Your task to perform on an android device: When is my next appointment? Image 0: 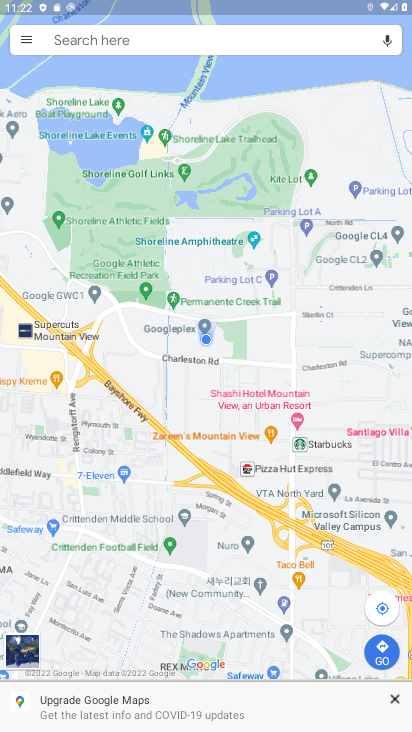
Step 0: press home button
Your task to perform on an android device: When is my next appointment? Image 1: 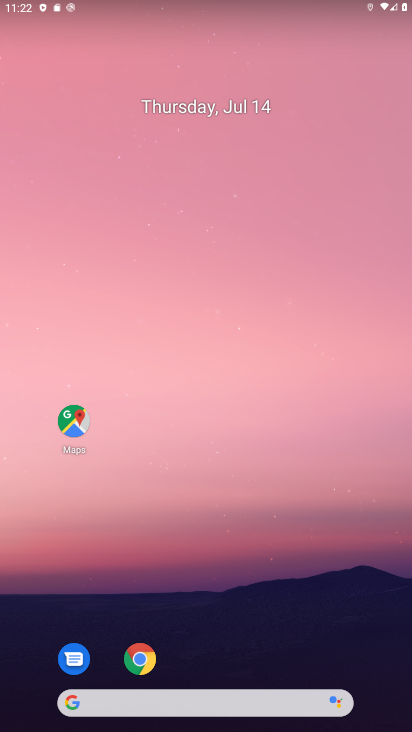
Step 1: drag from (205, 650) to (195, 239)
Your task to perform on an android device: When is my next appointment? Image 2: 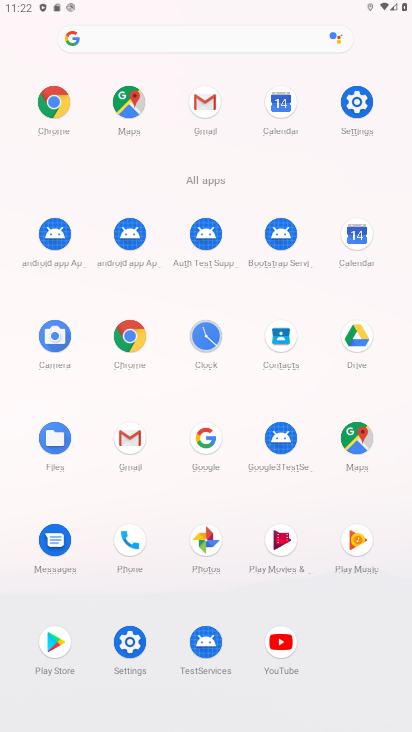
Step 2: click (274, 106)
Your task to perform on an android device: When is my next appointment? Image 3: 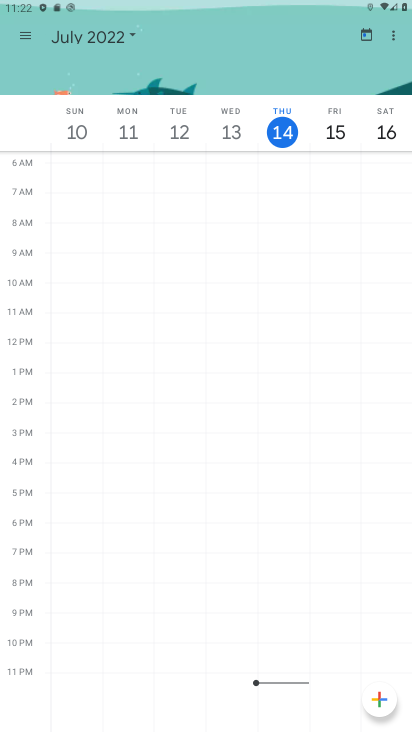
Step 3: click (320, 133)
Your task to perform on an android device: When is my next appointment? Image 4: 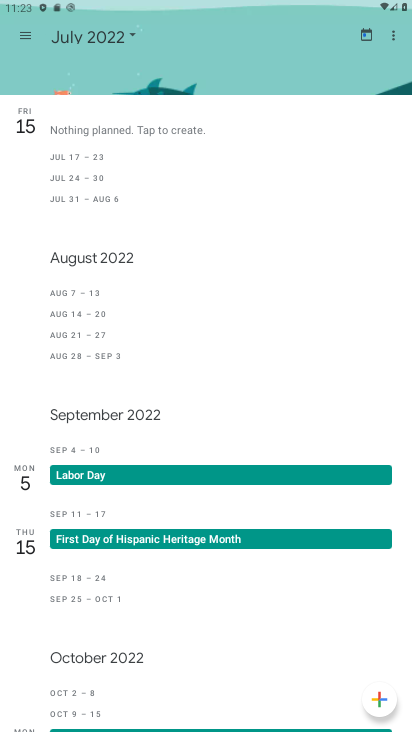
Step 4: task complete